Your task to perform on an android device: Open Wikipedia Image 0: 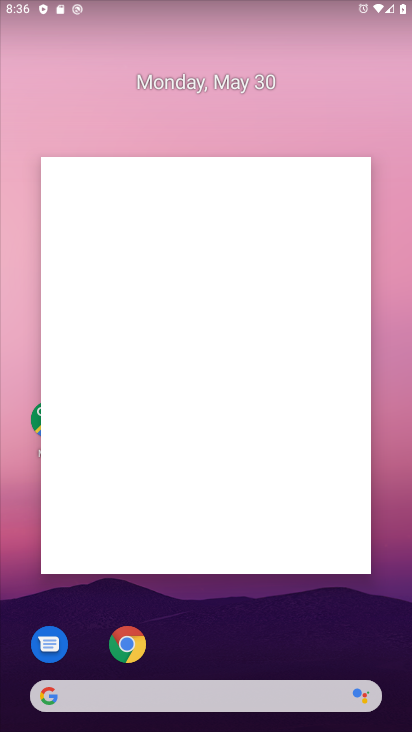
Step 0: drag from (380, 659) to (317, 113)
Your task to perform on an android device: Open Wikipedia Image 1: 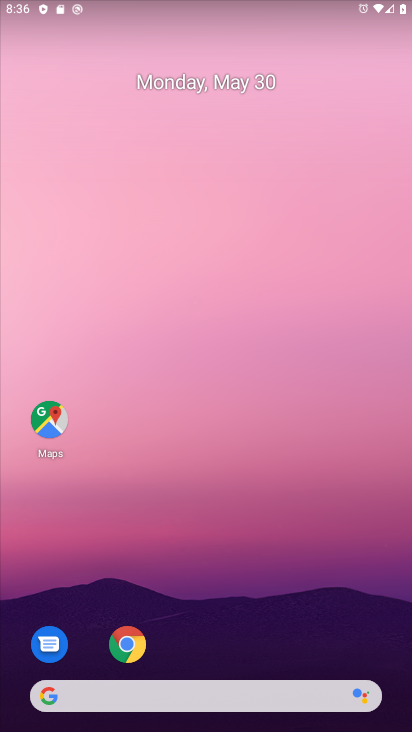
Step 1: click (125, 646)
Your task to perform on an android device: Open Wikipedia Image 2: 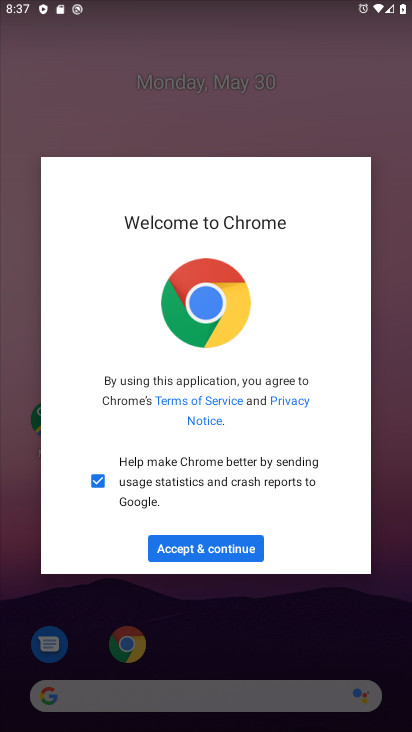
Step 2: click (203, 548)
Your task to perform on an android device: Open Wikipedia Image 3: 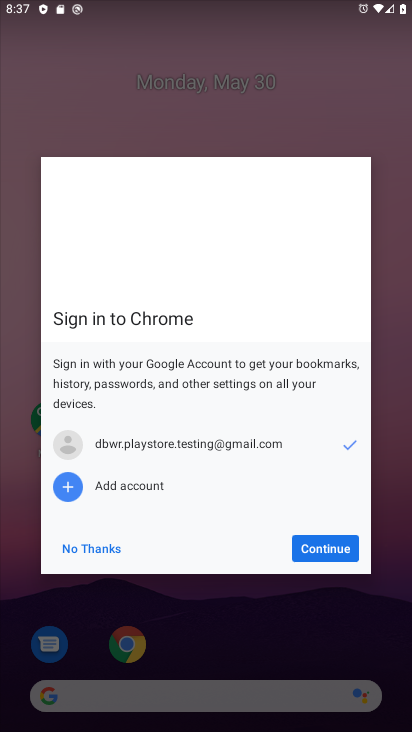
Step 3: click (324, 547)
Your task to perform on an android device: Open Wikipedia Image 4: 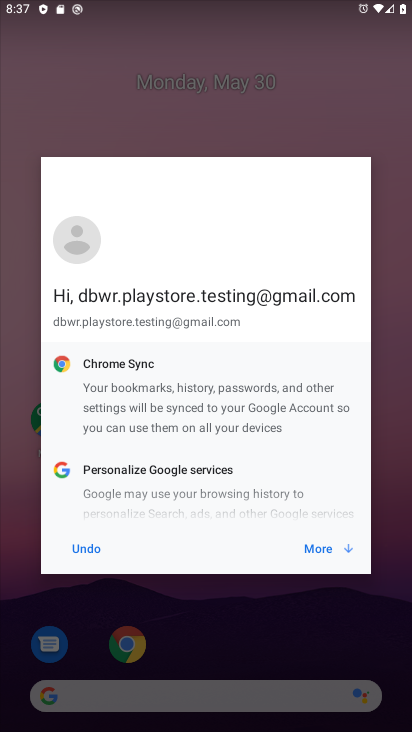
Step 4: click (324, 547)
Your task to perform on an android device: Open Wikipedia Image 5: 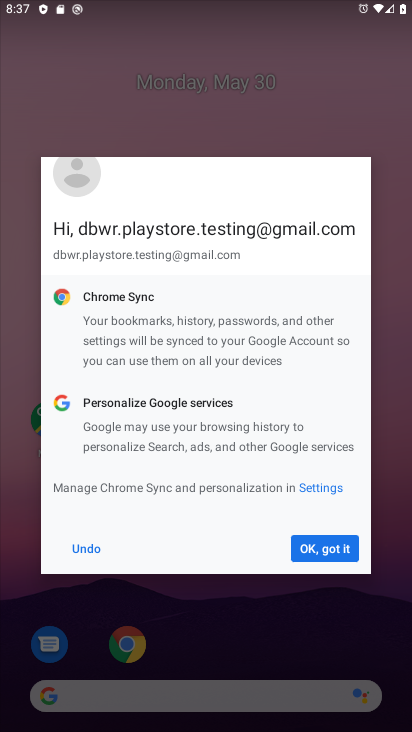
Step 5: click (324, 547)
Your task to perform on an android device: Open Wikipedia Image 6: 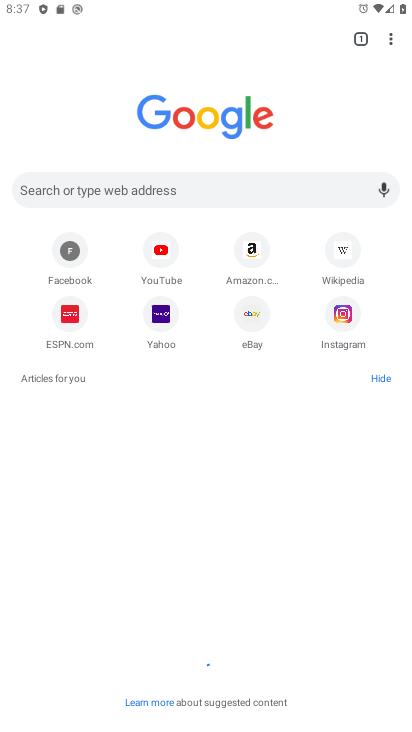
Step 6: click (212, 197)
Your task to perform on an android device: Open Wikipedia Image 7: 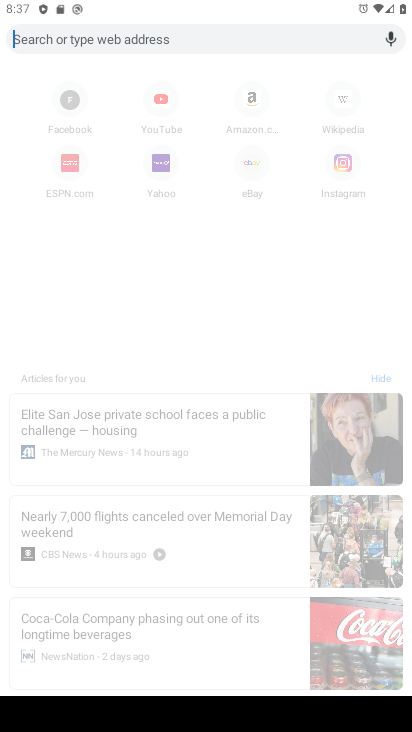
Step 7: type "wikipedia"
Your task to perform on an android device: Open Wikipedia Image 8: 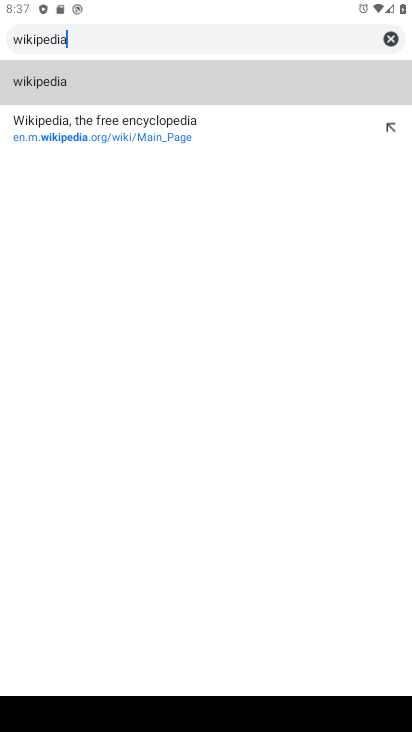
Step 8: click (56, 77)
Your task to perform on an android device: Open Wikipedia Image 9: 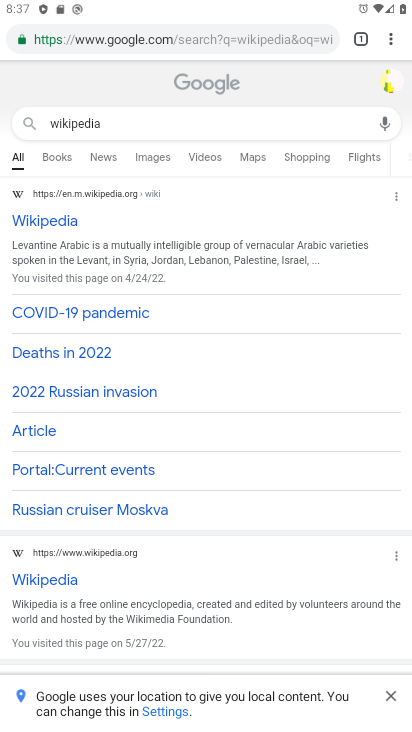
Step 9: click (49, 218)
Your task to perform on an android device: Open Wikipedia Image 10: 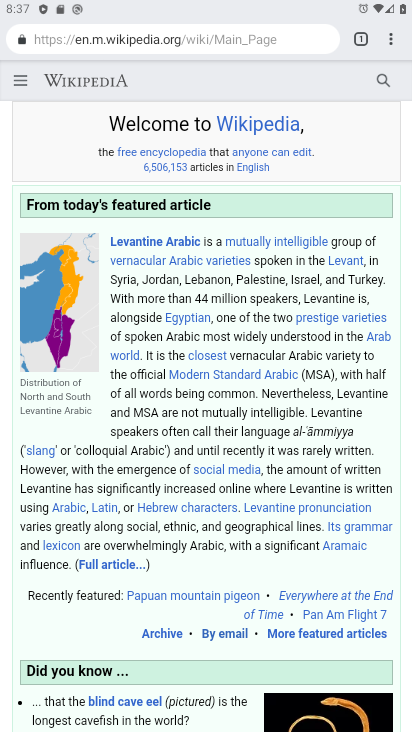
Step 10: task complete